Your task to perform on an android device: Open Google Maps Image 0: 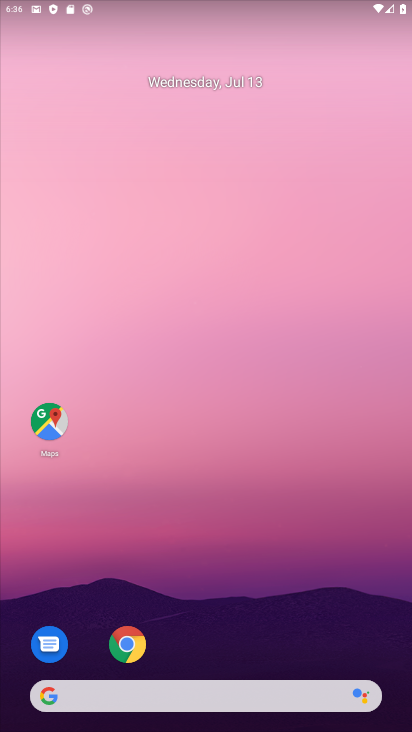
Step 0: click (47, 426)
Your task to perform on an android device: Open Google Maps Image 1: 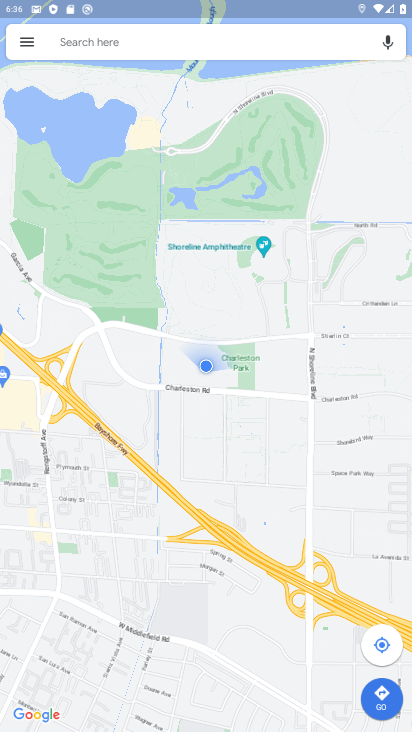
Step 1: task complete